Your task to perform on an android device: Open display settings Image 0: 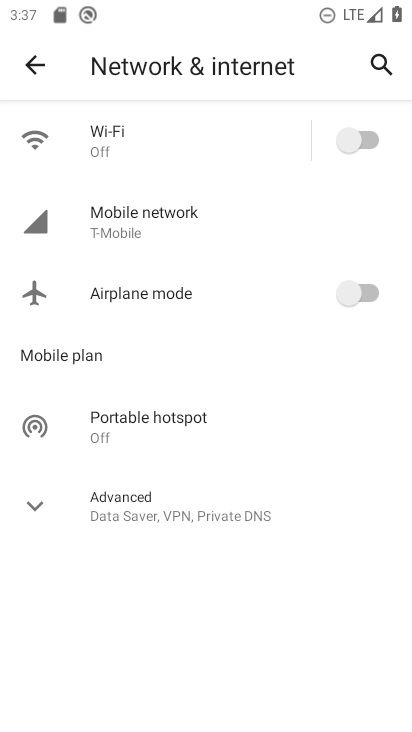
Step 0: press home button
Your task to perform on an android device: Open display settings Image 1: 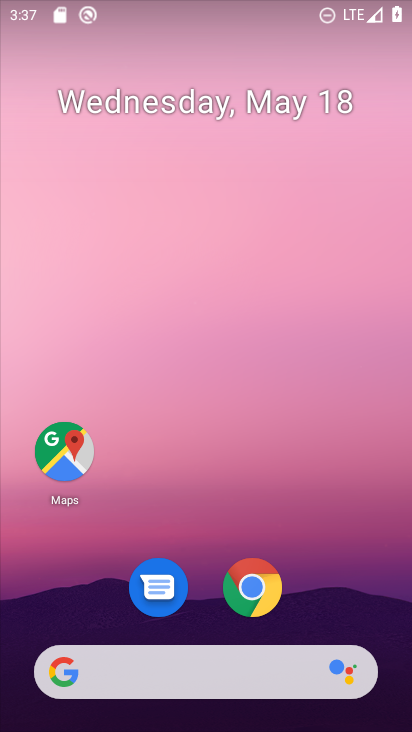
Step 1: drag from (151, 663) to (252, 97)
Your task to perform on an android device: Open display settings Image 2: 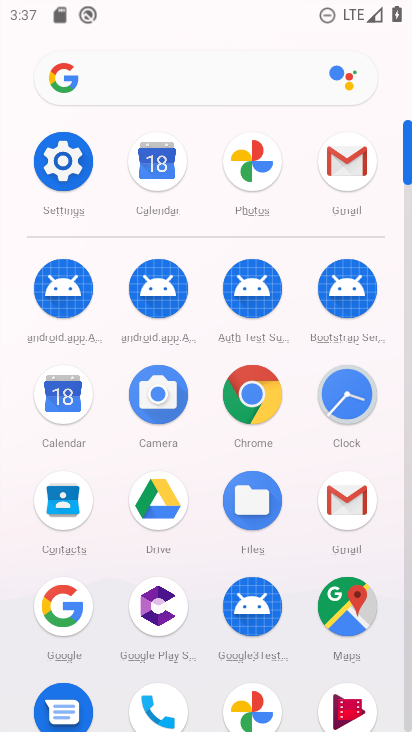
Step 2: click (81, 149)
Your task to perform on an android device: Open display settings Image 3: 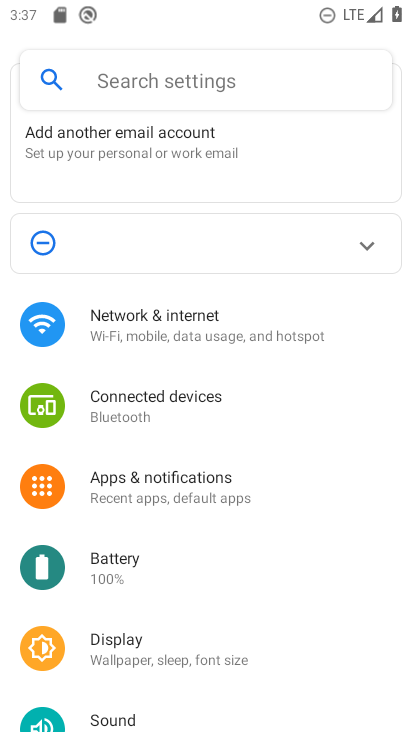
Step 3: click (139, 660)
Your task to perform on an android device: Open display settings Image 4: 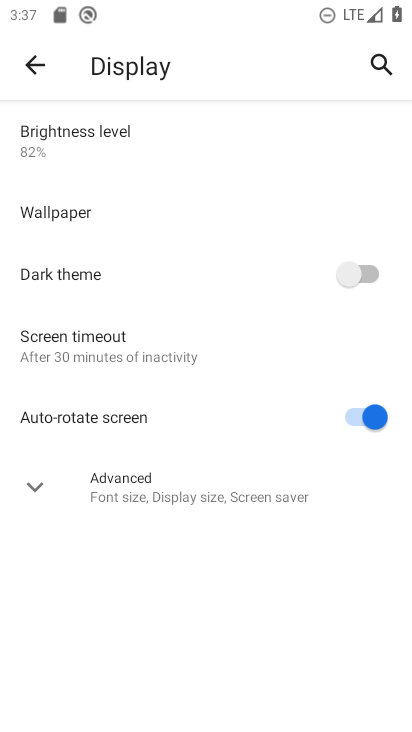
Step 4: task complete